Your task to perform on an android device: turn on notifications settings in the gmail app Image 0: 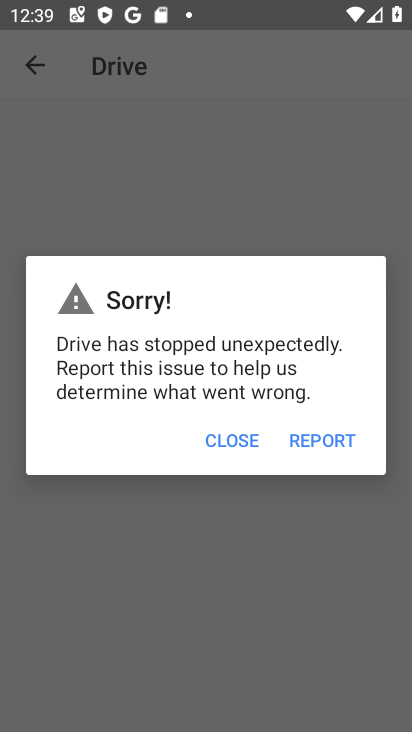
Step 0: press home button
Your task to perform on an android device: turn on notifications settings in the gmail app Image 1: 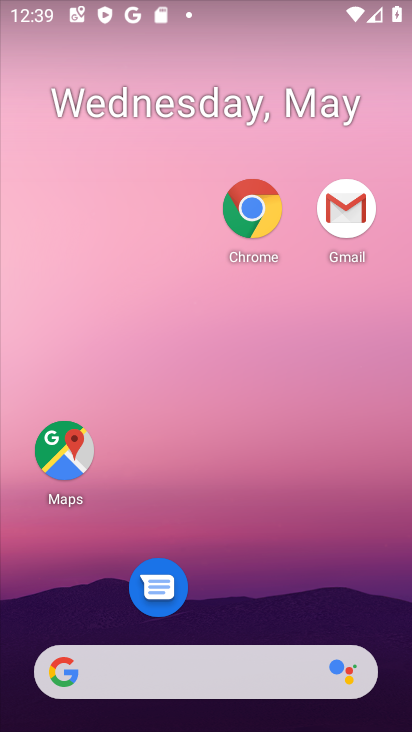
Step 1: click (344, 200)
Your task to perform on an android device: turn on notifications settings in the gmail app Image 2: 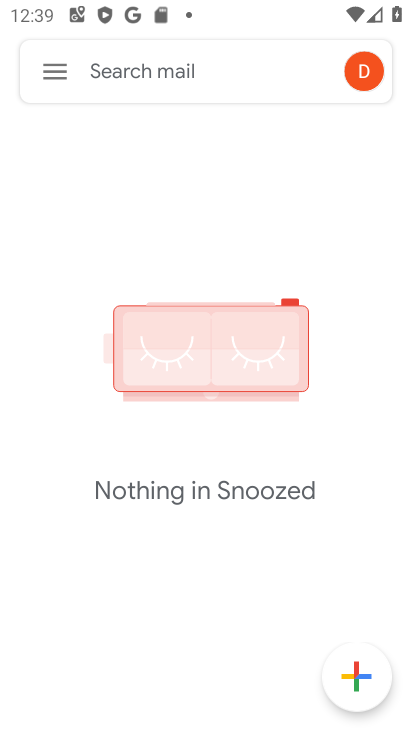
Step 2: click (50, 68)
Your task to perform on an android device: turn on notifications settings in the gmail app Image 3: 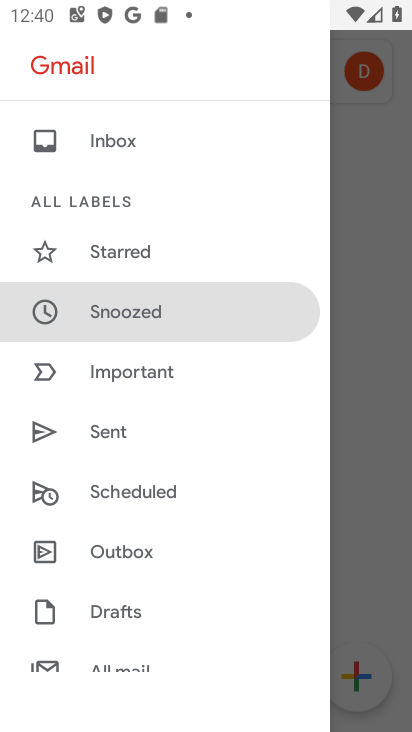
Step 3: drag from (137, 618) to (154, 230)
Your task to perform on an android device: turn on notifications settings in the gmail app Image 4: 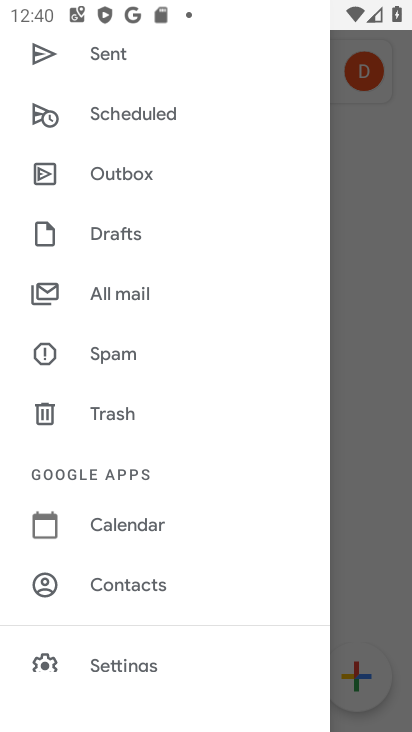
Step 4: click (140, 654)
Your task to perform on an android device: turn on notifications settings in the gmail app Image 5: 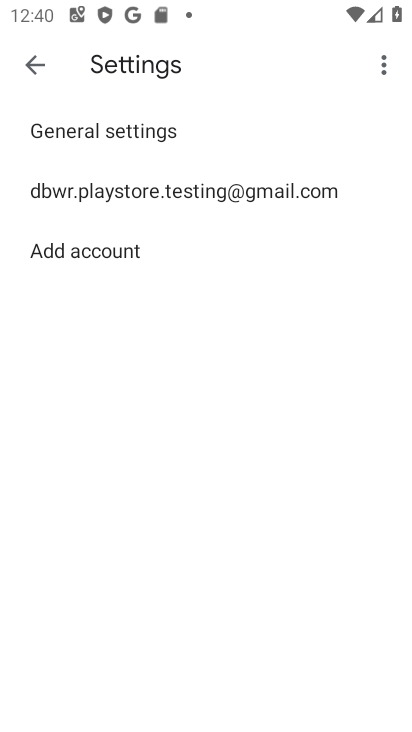
Step 5: click (209, 183)
Your task to perform on an android device: turn on notifications settings in the gmail app Image 6: 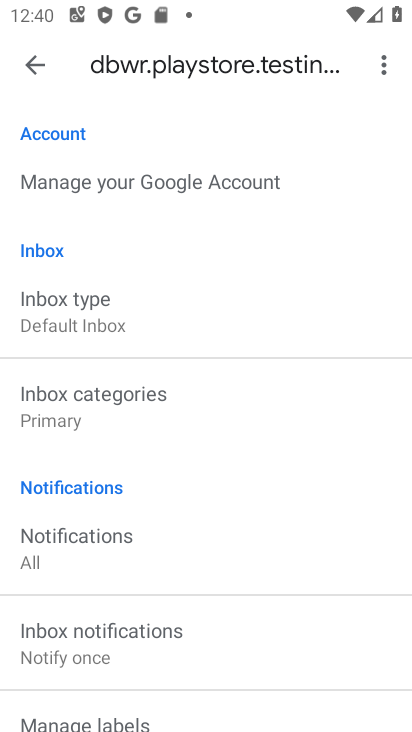
Step 6: drag from (223, 625) to (213, 302)
Your task to perform on an android device: turn on notifications settings in the gmail app Image 7: 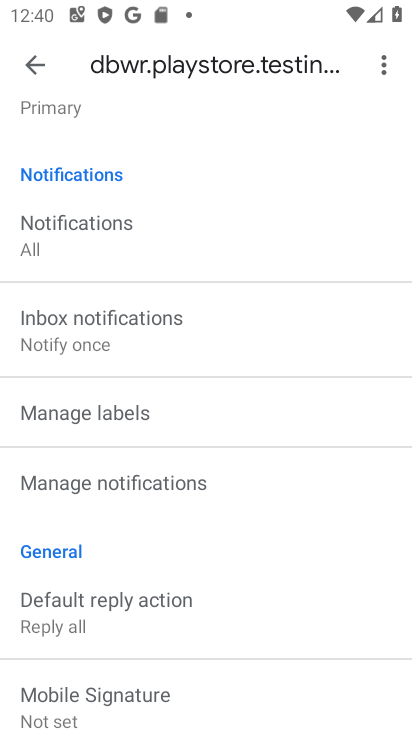
Step 7: click (188, 495)
Your task to perform on an android device: turn on notifications settings in the gmail app Image 8: 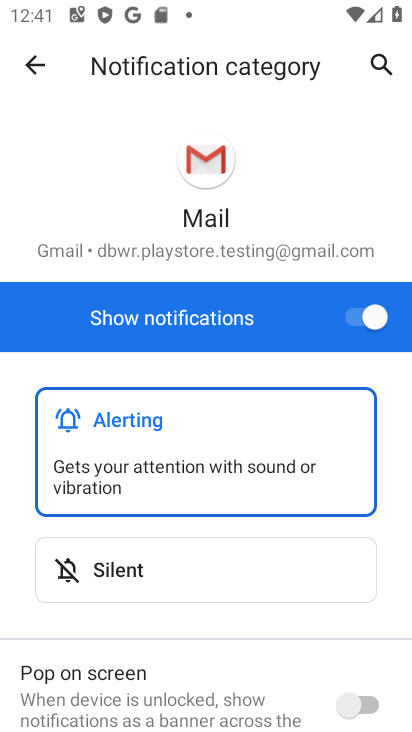
Step 8: task complete